Your task to perform on an android device: Is it going to rain this weekend? Image 0: 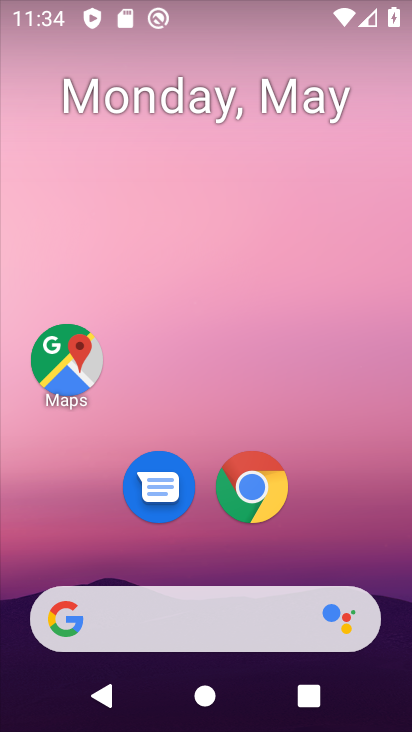
Step 0: press home button
Your task to perform on an android device: Is it going to rain this weekend? Image 1: 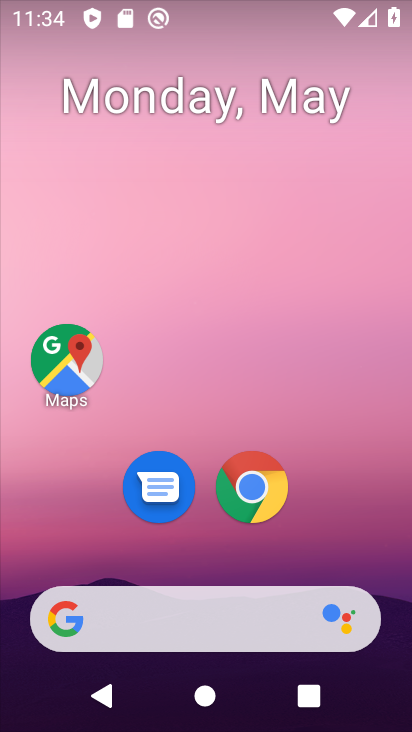
Step 1: click (163, 642)
Your task to perform on an android device: Is it going to rain this weekend? Image 2: 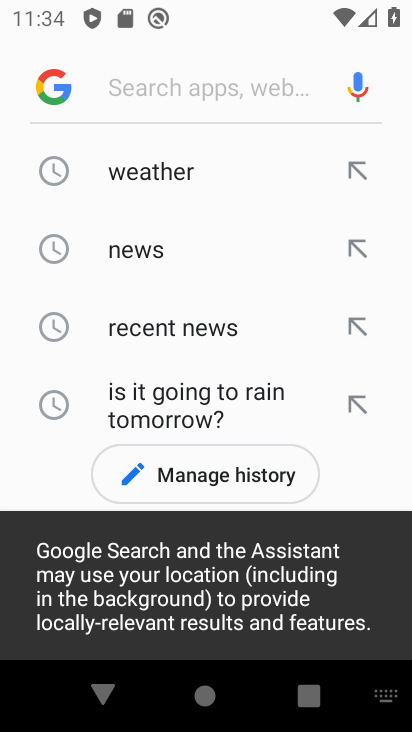
Step 2: click (142, 170)
Your task to perform on an android device: Is it going to rain this weekend? Image 3: 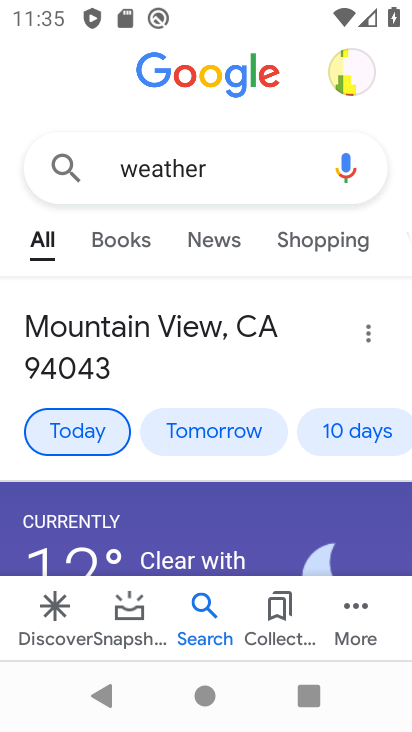
Step 3: click (327, 427)
Your task to perform on an android device: Is it going to rain this weekend? Image 4: 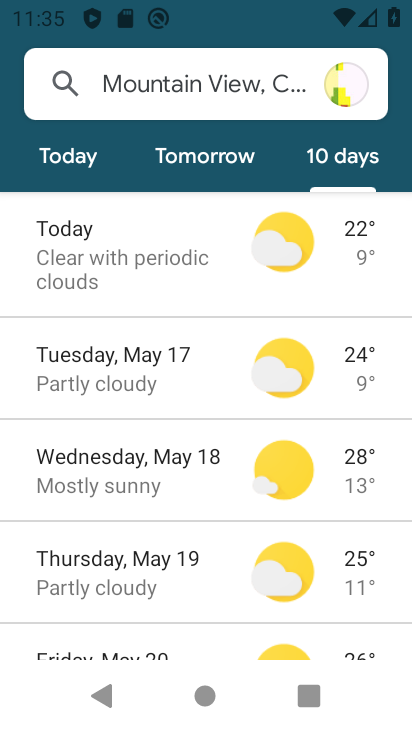
Step 4: task complete